Your task to perform on an android device: Open eBay Image 0: 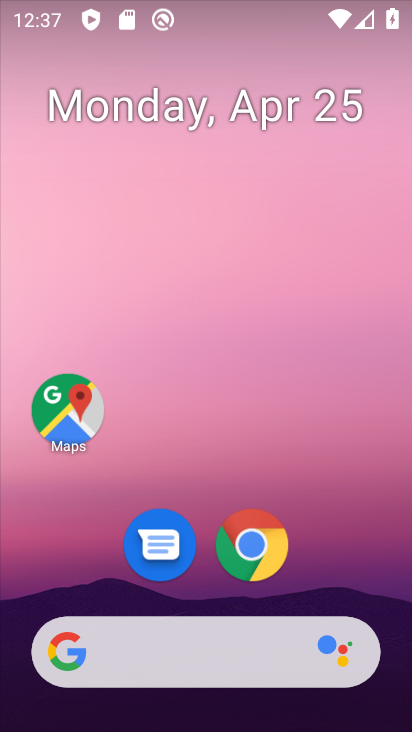
Step 0: click (266, 549)
Your task to perform on an android device: Open eBay Image 1: 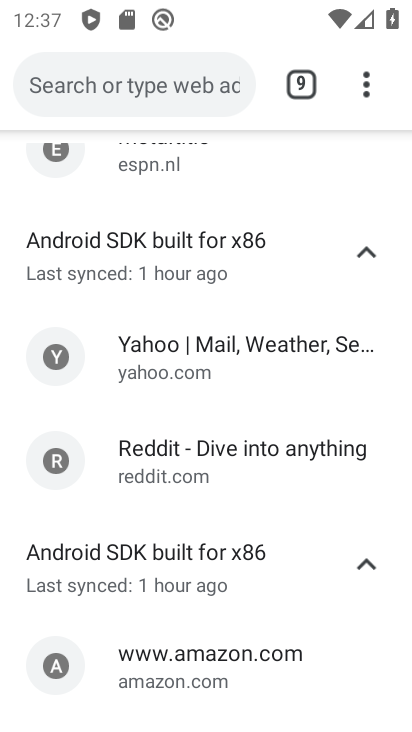
Step 1: drag from (192, 626) to (174, 172)
Your task to perform on an android device: Open eBay Image 2: 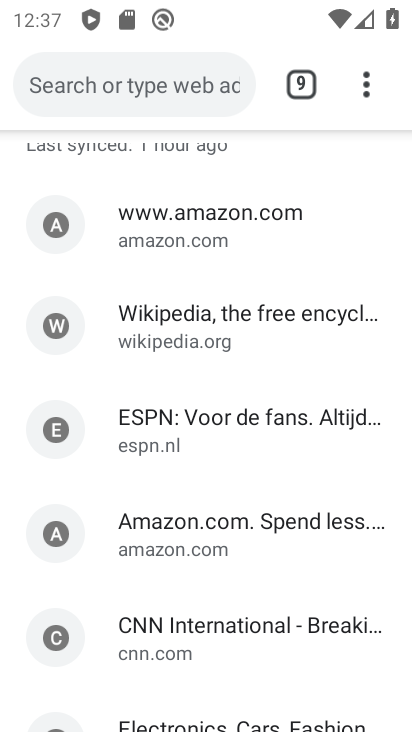
Step 2: drag from (162, 617) to (190, 341)
Your task to perform on an android device: Open eBay Image 3: 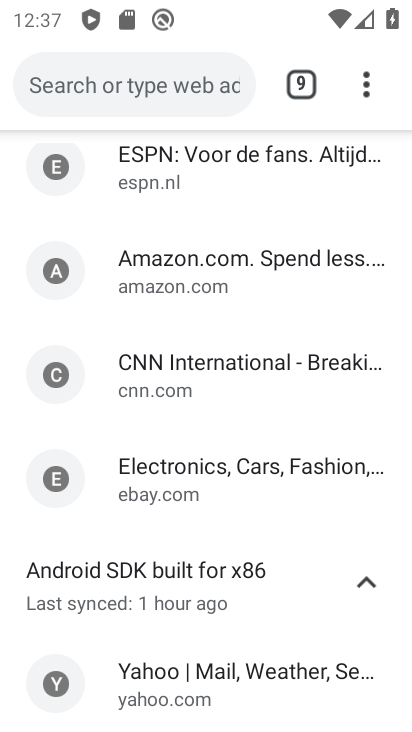
Step 3: click (160, 465)
Your task to perform on an android device: Open eBay Image 4: 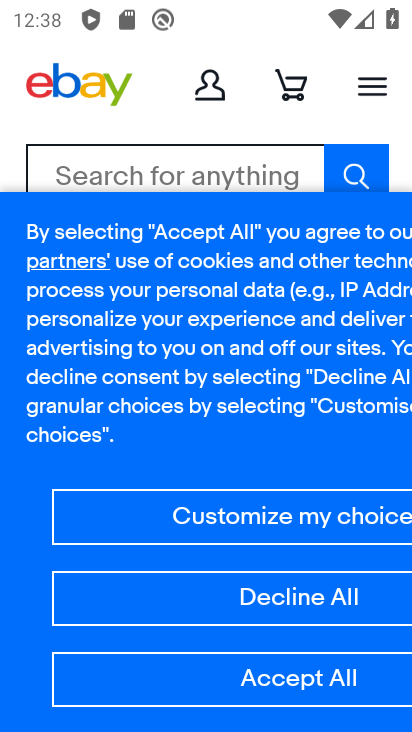
Step 4: task complete